Your task to perform on an android device: turn off picture-in-picture Image 0: 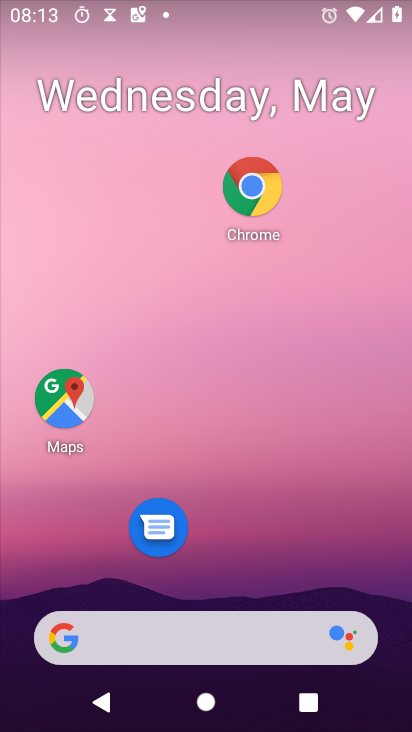
Step 0: click (254, 185)
Your task to perform on an android device: turn off picture-in-picture Image 1: 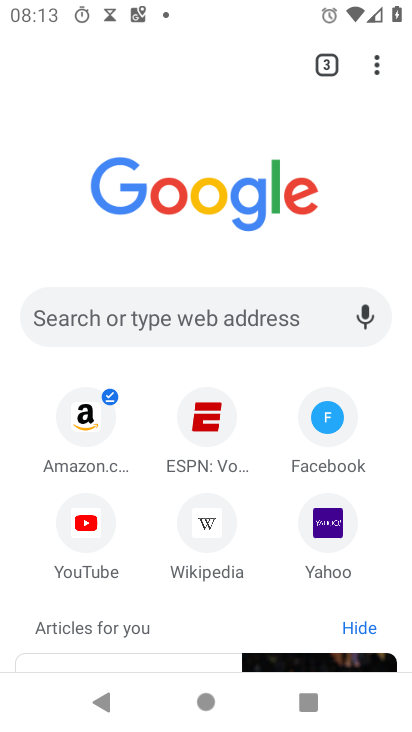
Step 1: press home button
Your task to perform on an android device: turn off picture-in-picture Image 2: 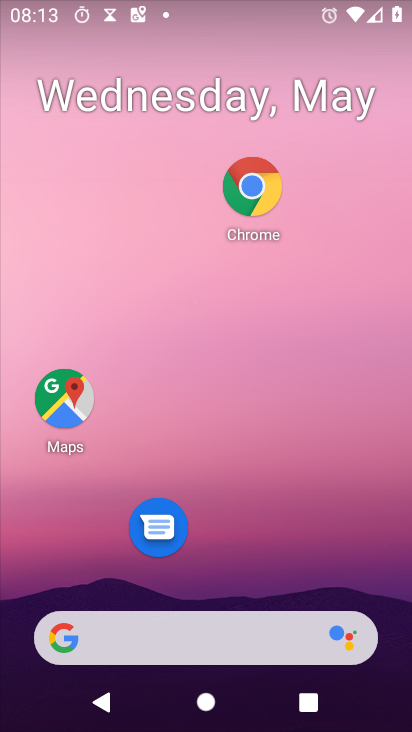
Step 2: click (261, 188)
Your task to perform on an android device: turn off picture-in-picture Image 3: 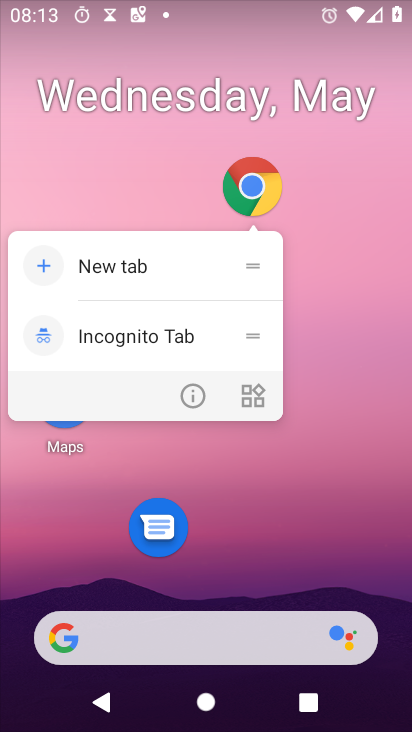
Step 3: click (189, 401)
Your task to perform on an android device: turn off picture-in-picture Image 4: 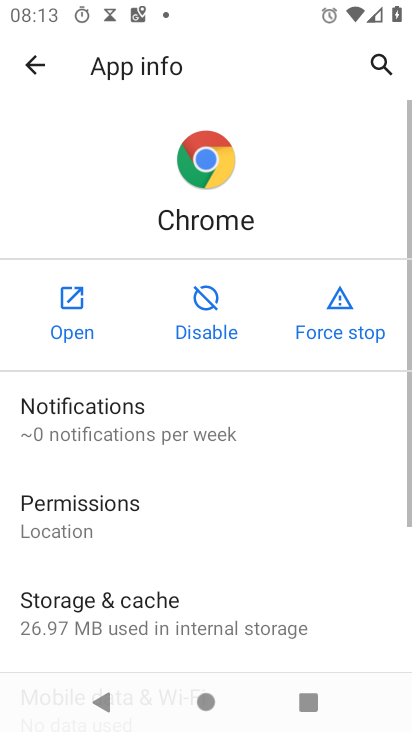
Step 4: drag from (238, 564) to (322, 159)
Your task to perform on an android device: turn off picture-in-picture Image 5: 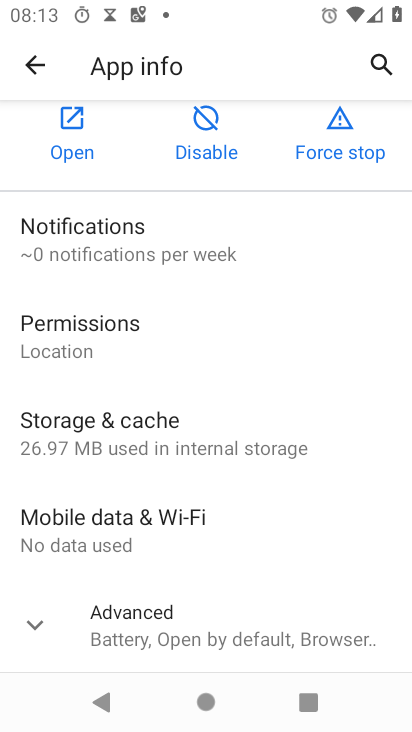
Step 5: click (140, 631)
Your task to perform on an android device: turn off picture-in-picture Image 6: 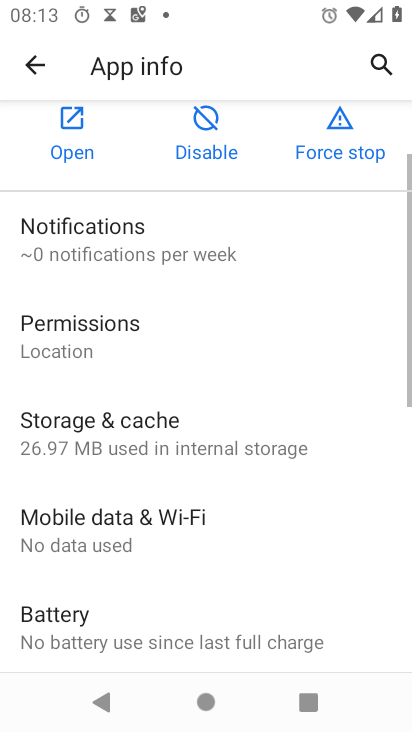
Step 6: drag from (315, 600) to (361, 102)
Your task to perform on an android device: turn off picture-in-picture Image 7: 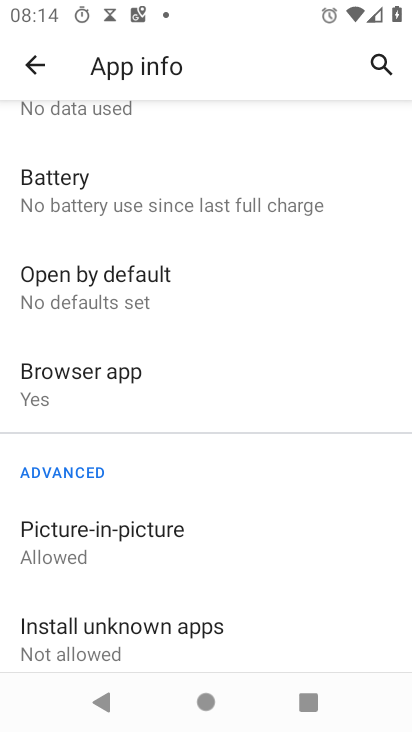
Step 7: click (71, 527)
Your task to perform on an android device: turn off picture-in-picture Image 8: 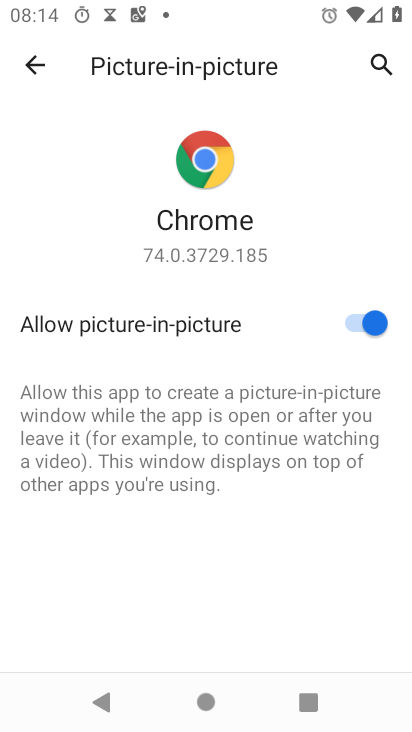
Step 8: click (348, 321)
Your task to perform on an android device: turn off picture-in-picture Image 9: 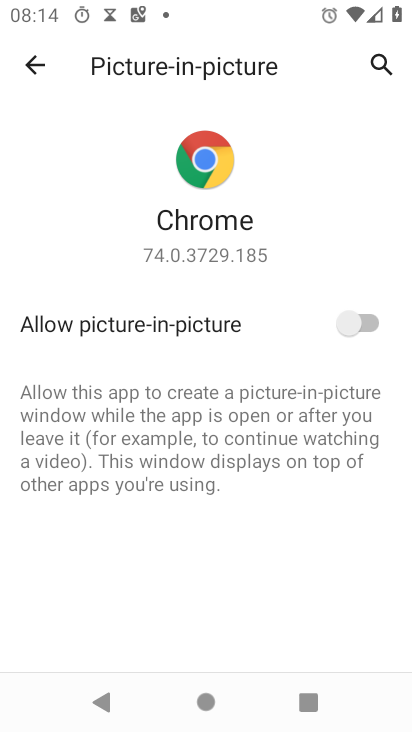
Step 9: task complete